Your task to perform on an android device: What's the weather? Image 0: 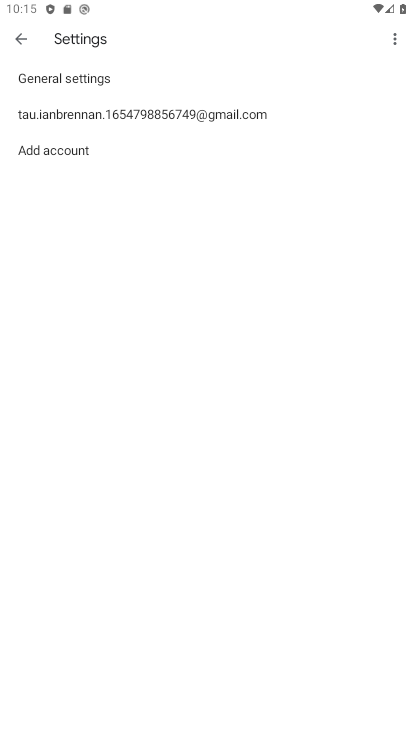
Step 0: drag from (231, 693) to (207, 168)
Your task to perform on an android device: What's the weather? Image 1: 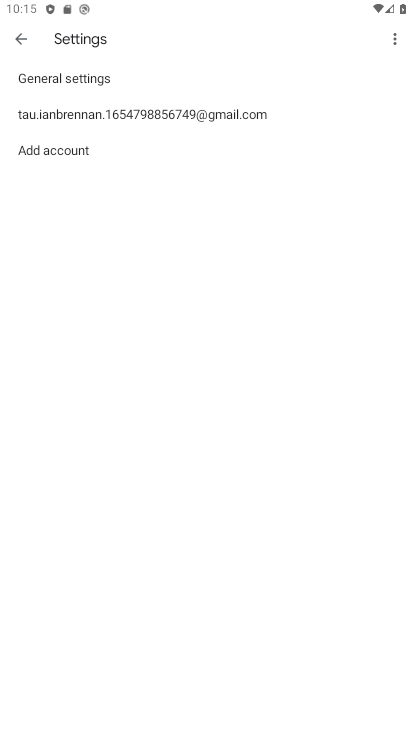
Step 1: click (19, 41)
Your task to perform on an android device: What's the weather? Image 2: 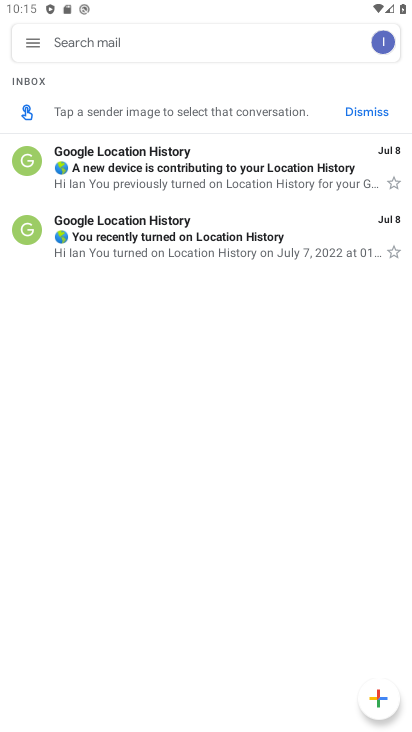
Step 2: press back button
Your task to perform on an android device: What's the weather? Image 3: 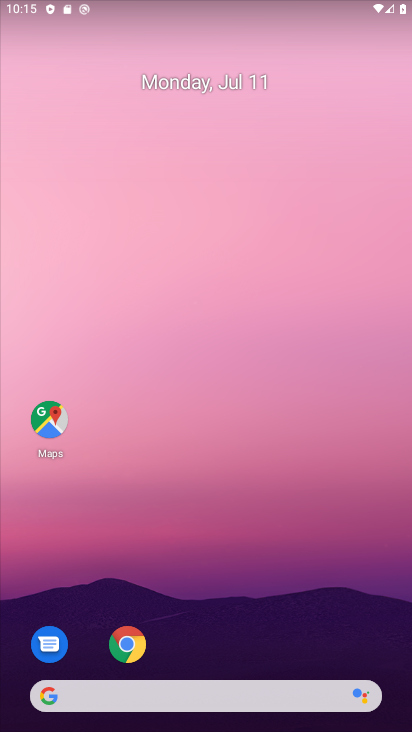
Step 3: drag from (74, 208) to (410, 444)
Your task to perform on an android device: What's the weather? Image 4: 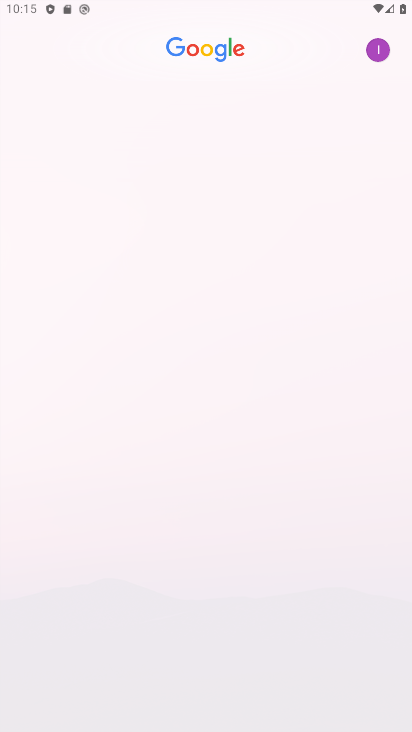
Step 4: drag from (32, 185) to (395, 464)
Your task to perform on an android device: What's the weather? Image 5: 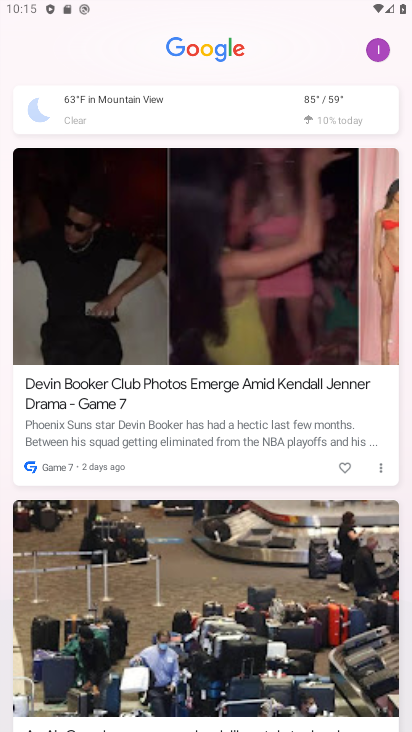
Step 5: click (106, 100)
Your task to perform on an android device: What's the weather? Image 6: 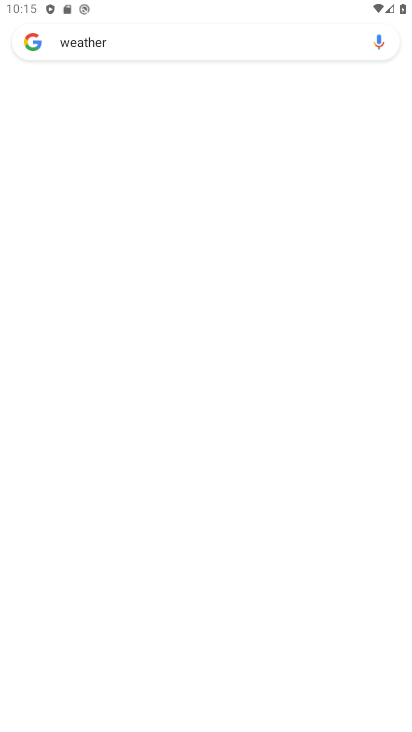
Step 6: click (134, 104)
Your task to perform on an android device: What's the weather? Image 7: 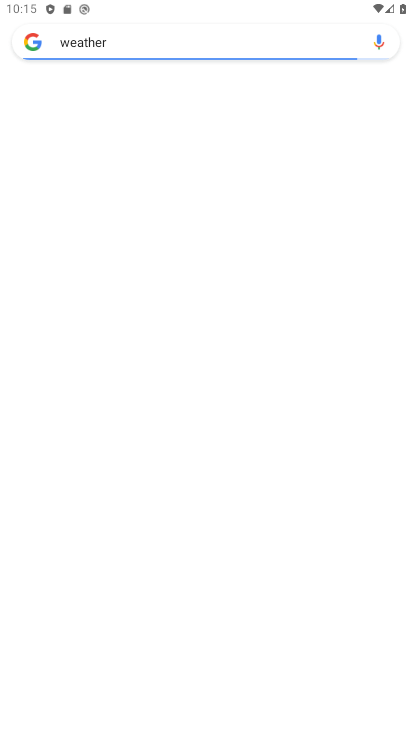
Step 7: click (136, 102)
Your task to perform on an android device: What's the weather? Image 8: 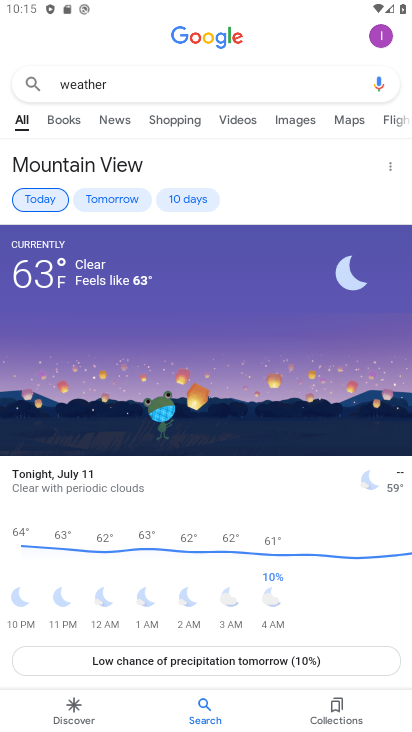
Step 8: task complete